Your task to perform on an android device: Is it going to rain tomorrow? Image 0: 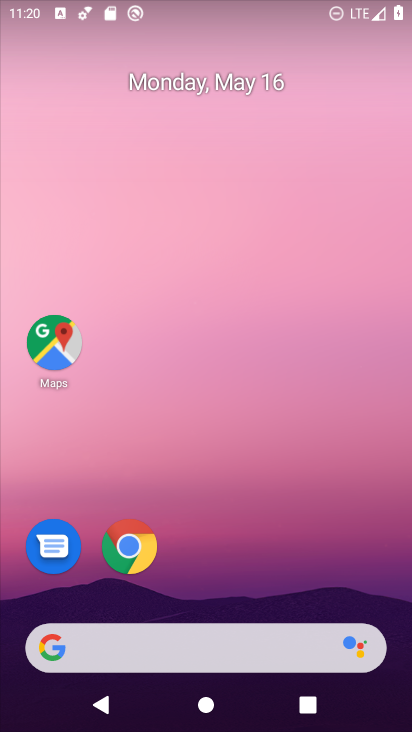
Step 0: click (160, 646)
Your task to perform on an android device: Is it going to rain tomorrow? Image 1: 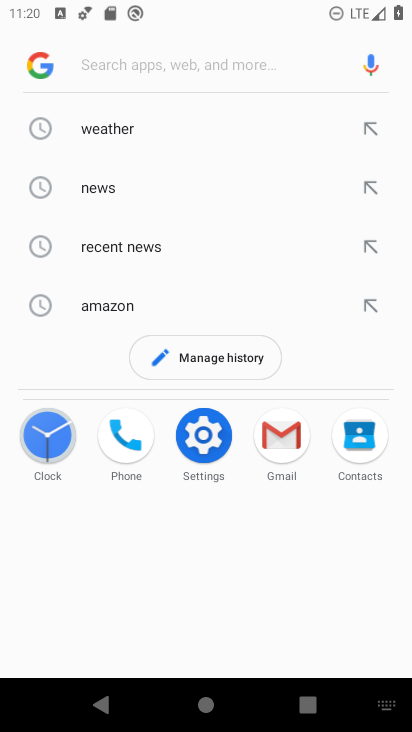
Step 1: click (186, 121)
Your task to perform on an android device: Is it going to rain tomorrow? Image 2: 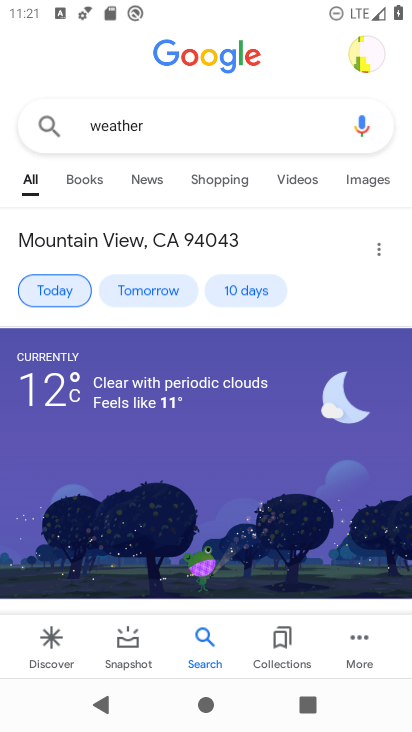
Step 2: click (147, 291)
Your task to perform on an android device: Is it going to rain tomorrow? Image 3: 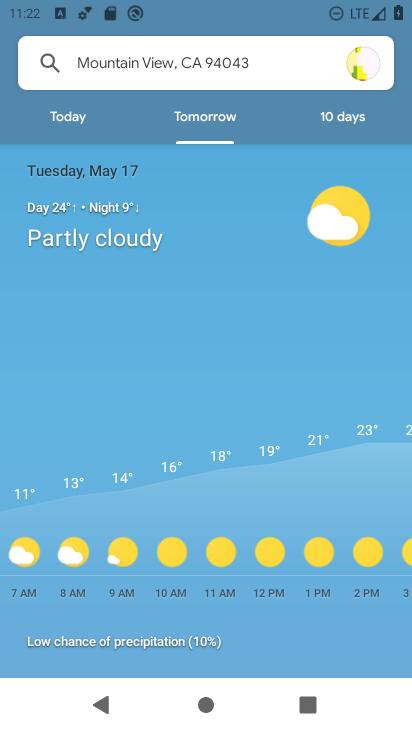
Step 3: task complete